Your task to perform on an android device: toggle priority inbox in the gmail app Image 0: 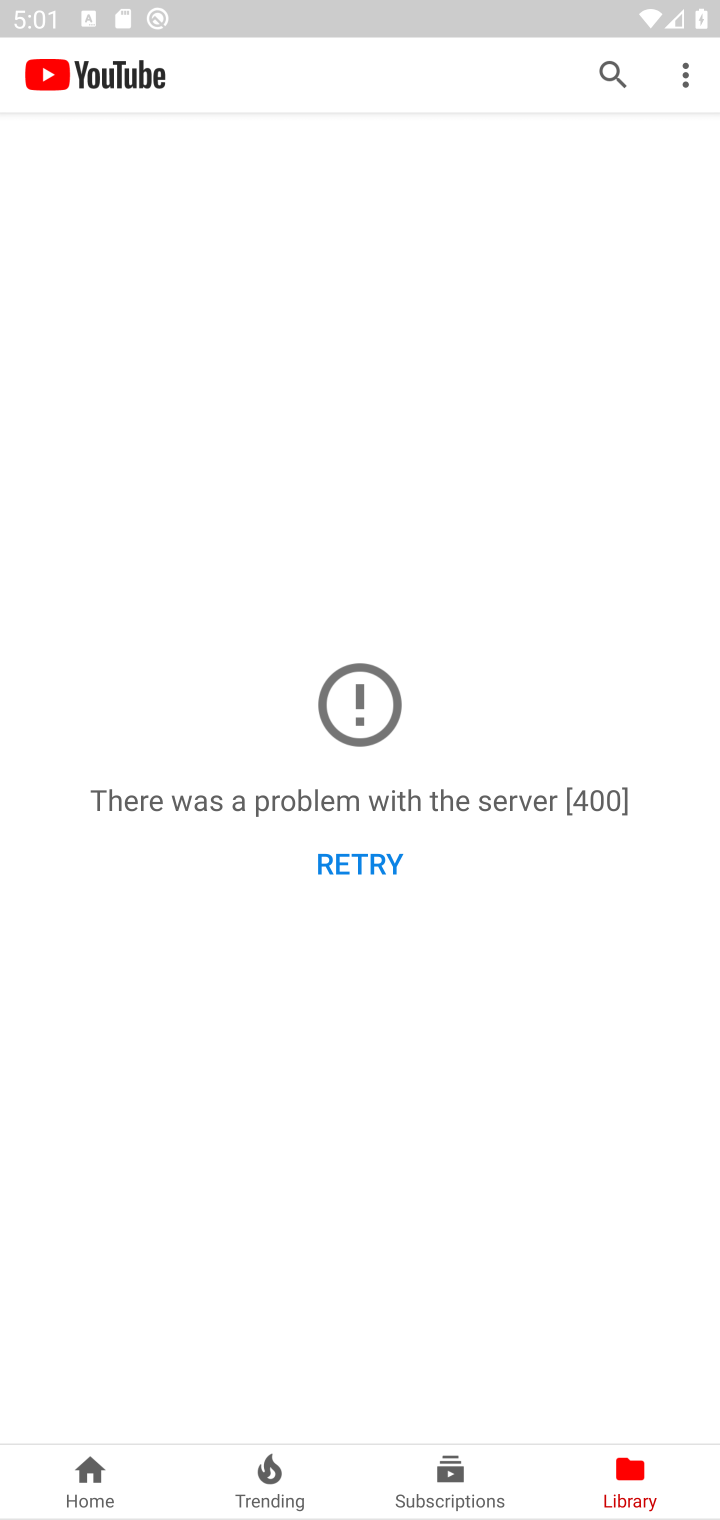
Step 0: press home button
Your task to perform on an android device: toggle priority inbox in the gmail app Image 1: 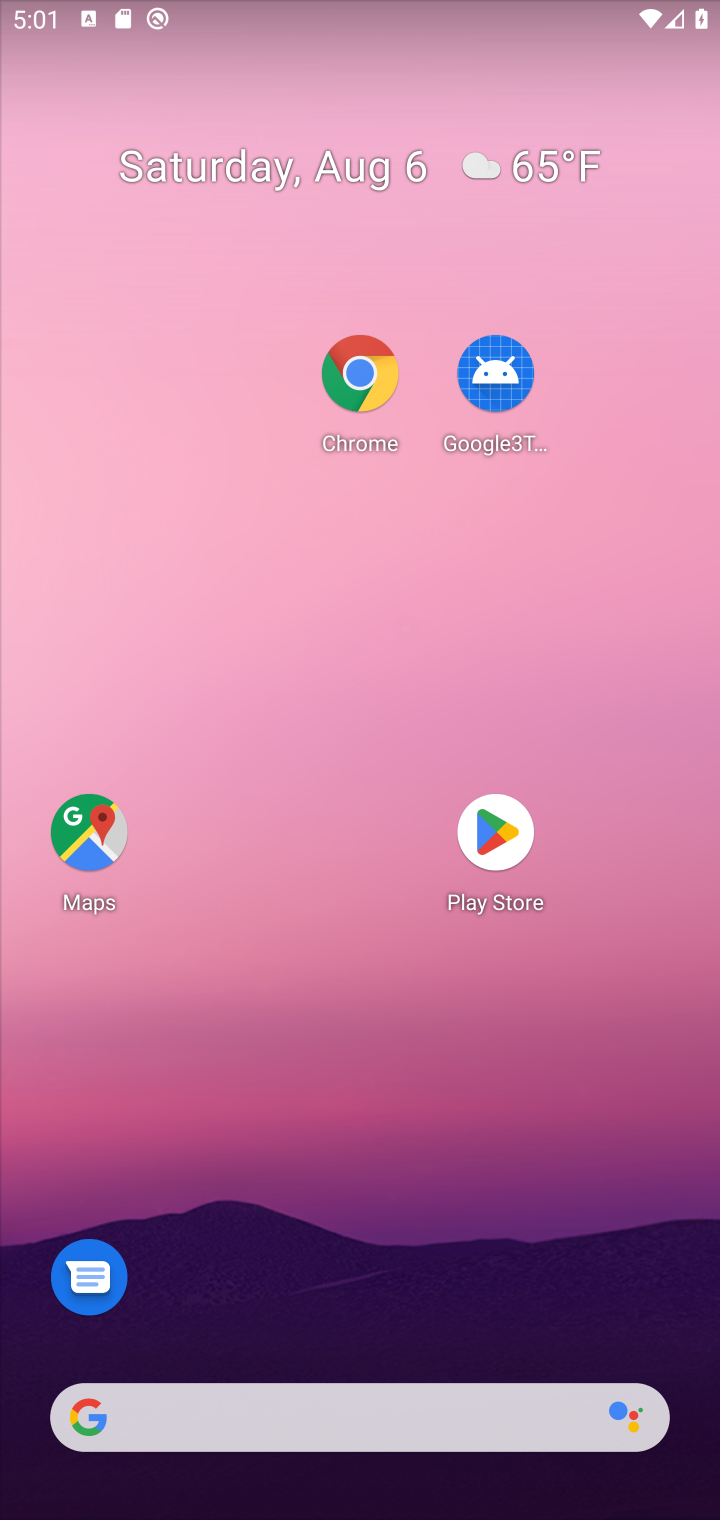
Step 1: drag from (486, 1423) to (568, 344)
Your task to perform on an android device: toggle priority inbox in the gmail app Image 2: 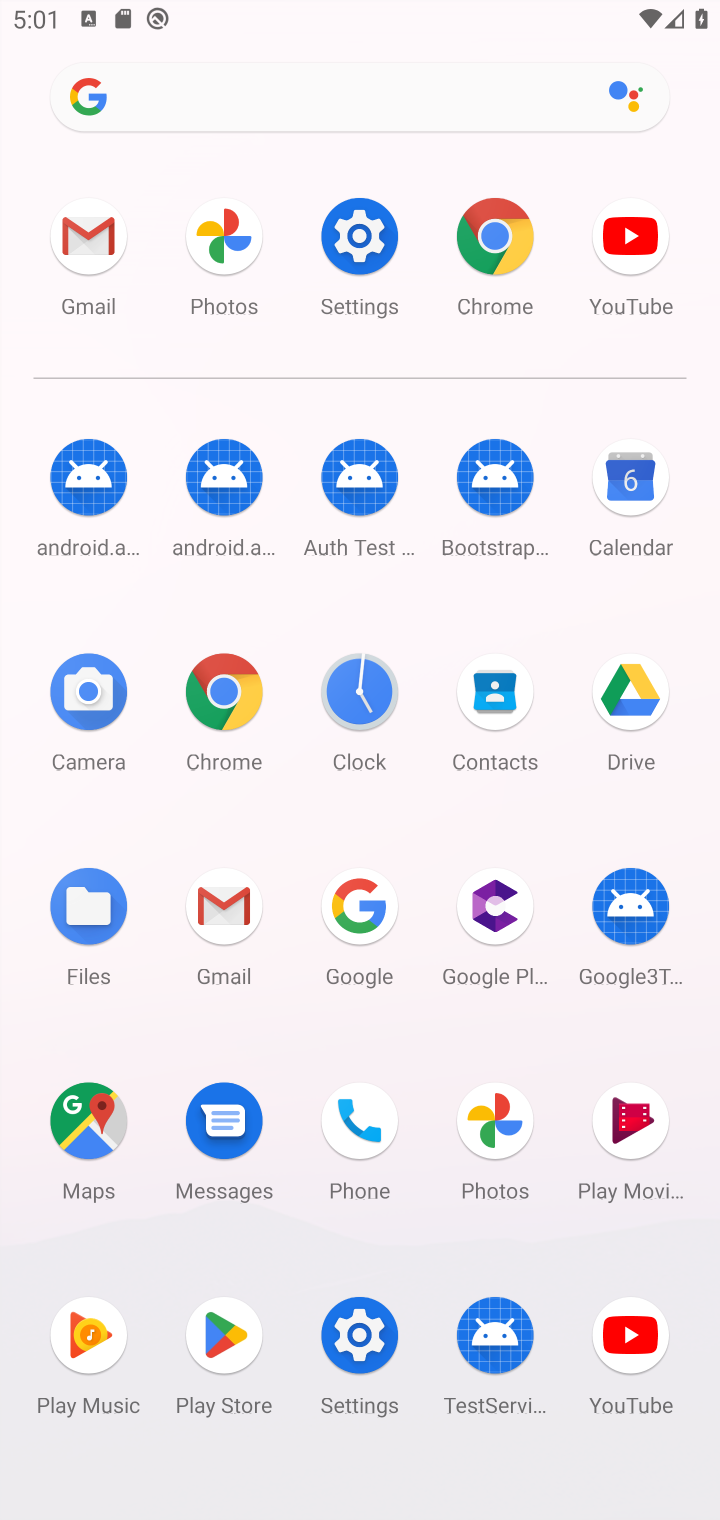
Step 2: click (349, 236)
Your task to perform on an android device: toggle priority inbox in the gmail app Image 3: 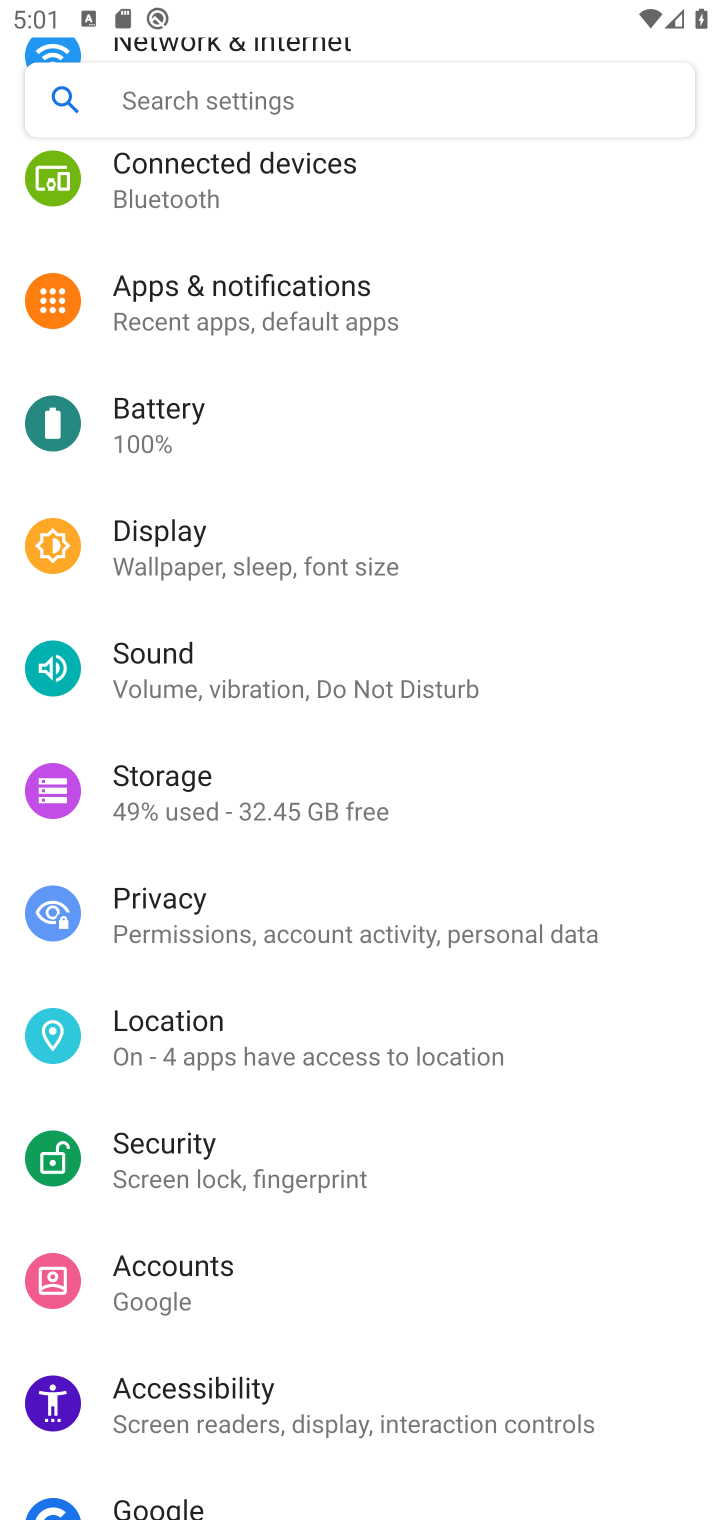
Step 3: press home button
Your task to perform on an android device: toggle priority inbox in the gmail app Image 4: 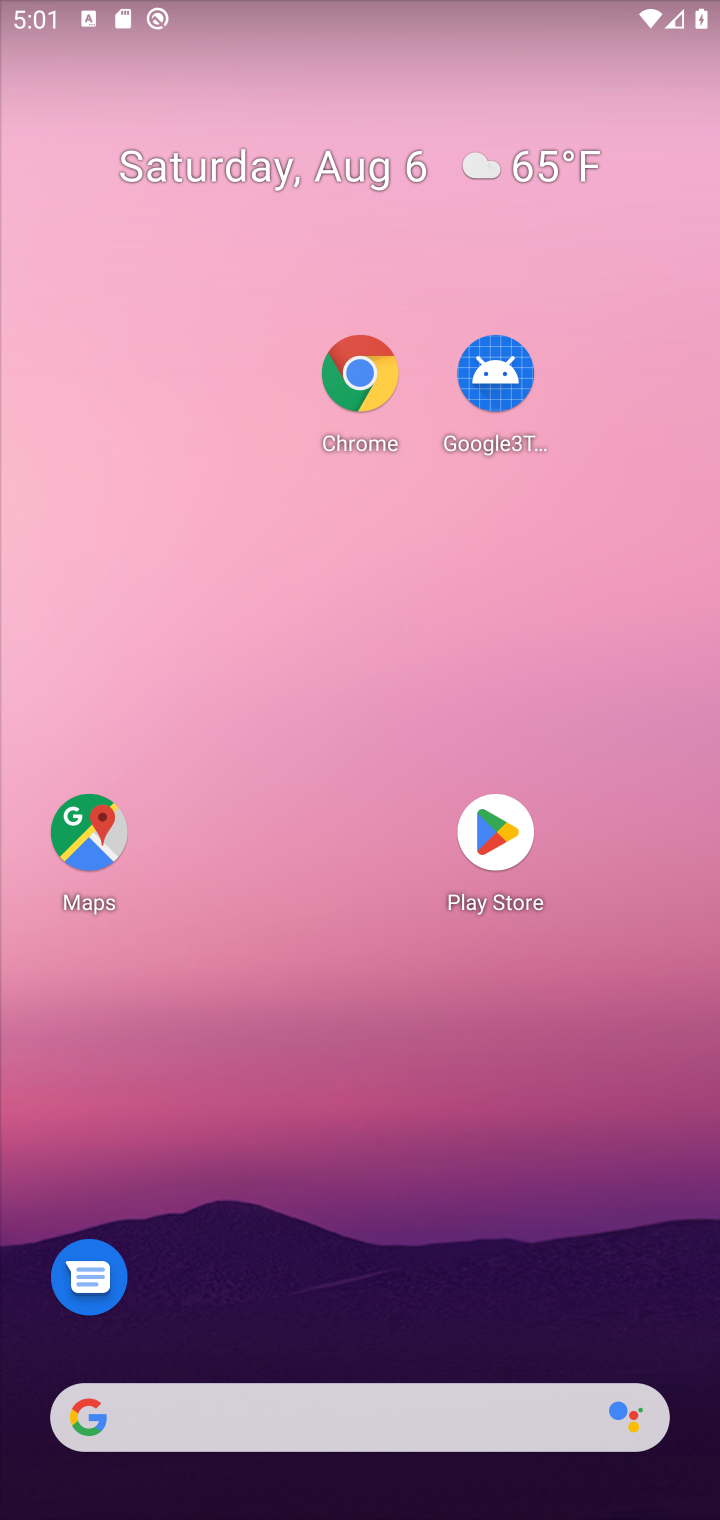
Step 4: drag from (550, 1401) to (576, 59)
Your task to perform on an android device: toggle priority inbox in the gmail app Image 5: 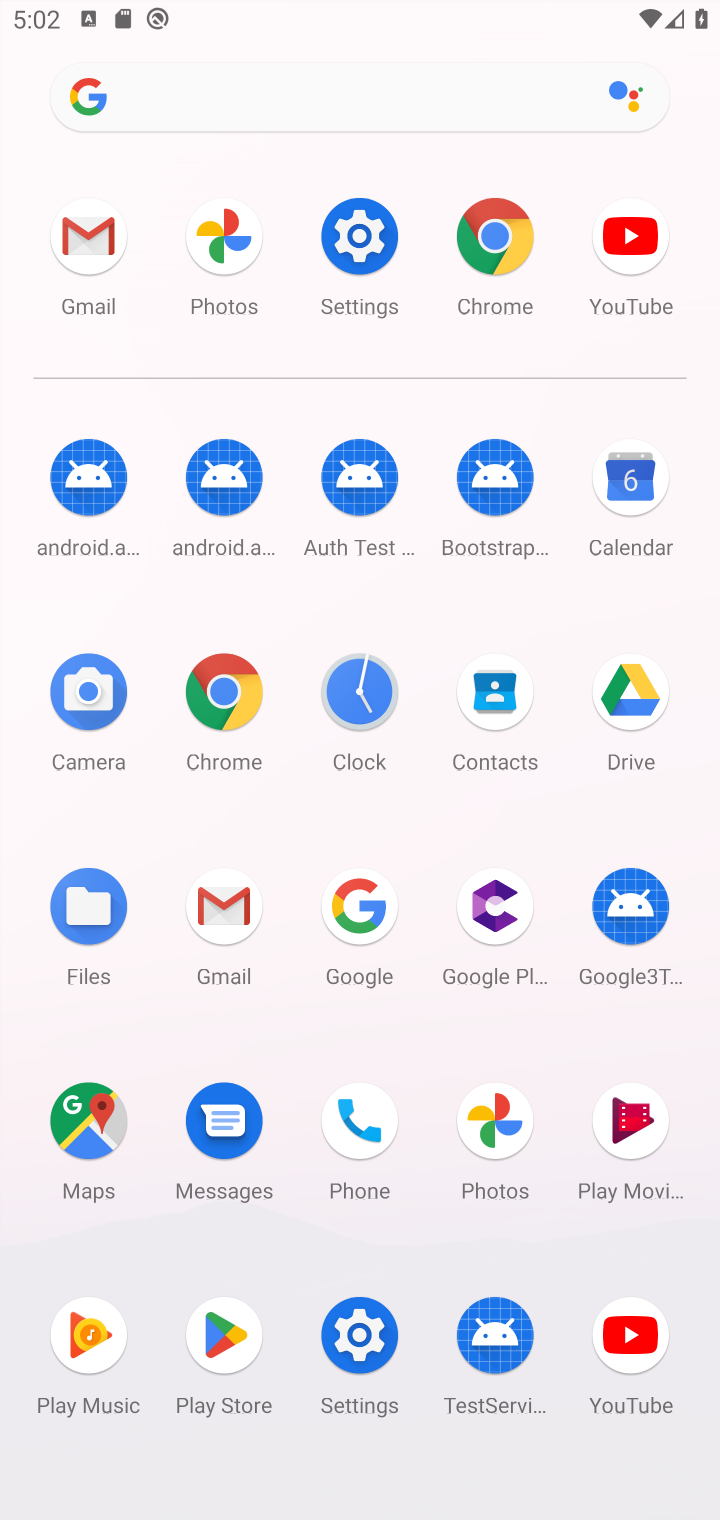
Step 5: click (246, 919)
Your task to perform on an android device: toggle priority inbox in the gmail app Image 6: 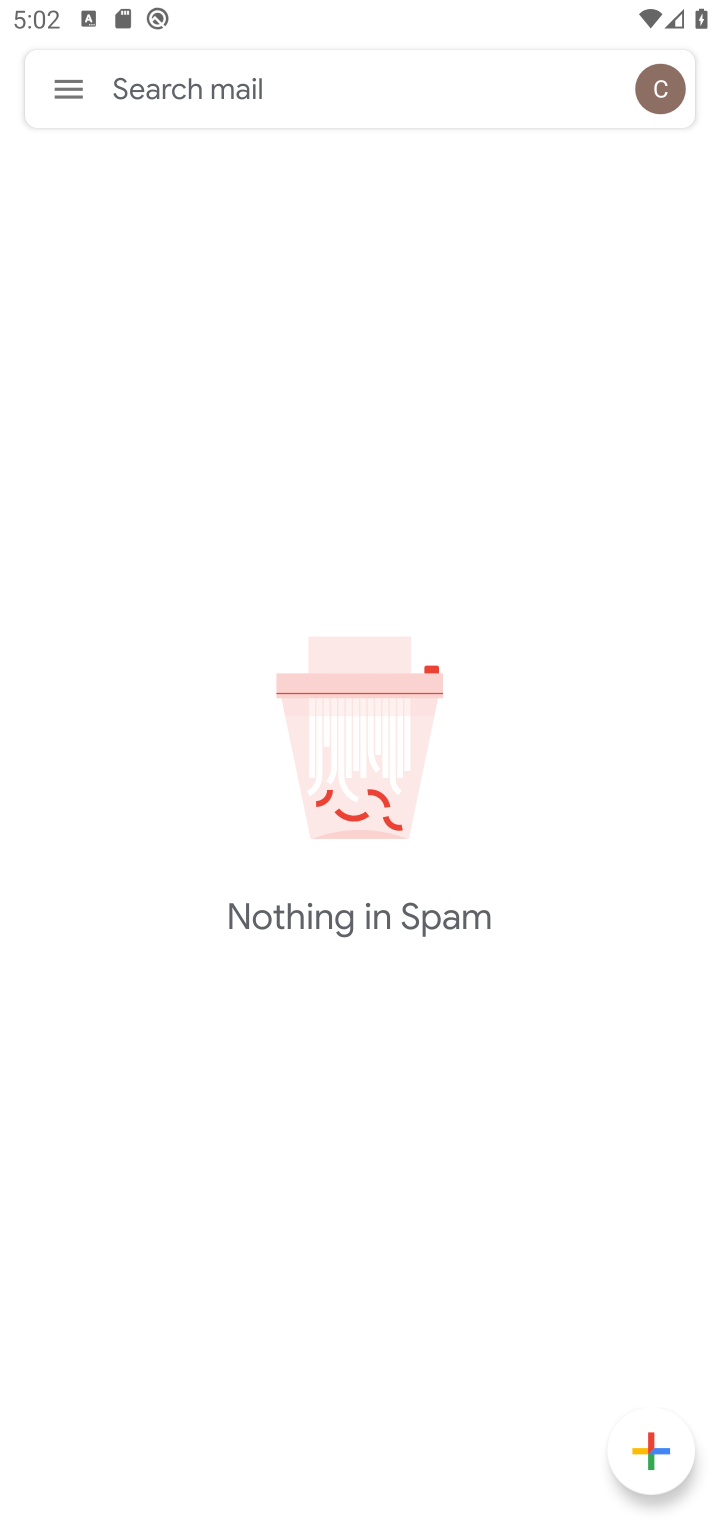
Step 6: click (66, 87)
Your task to perform on an android device: toggle priority inbox in the gmail app Image 7: 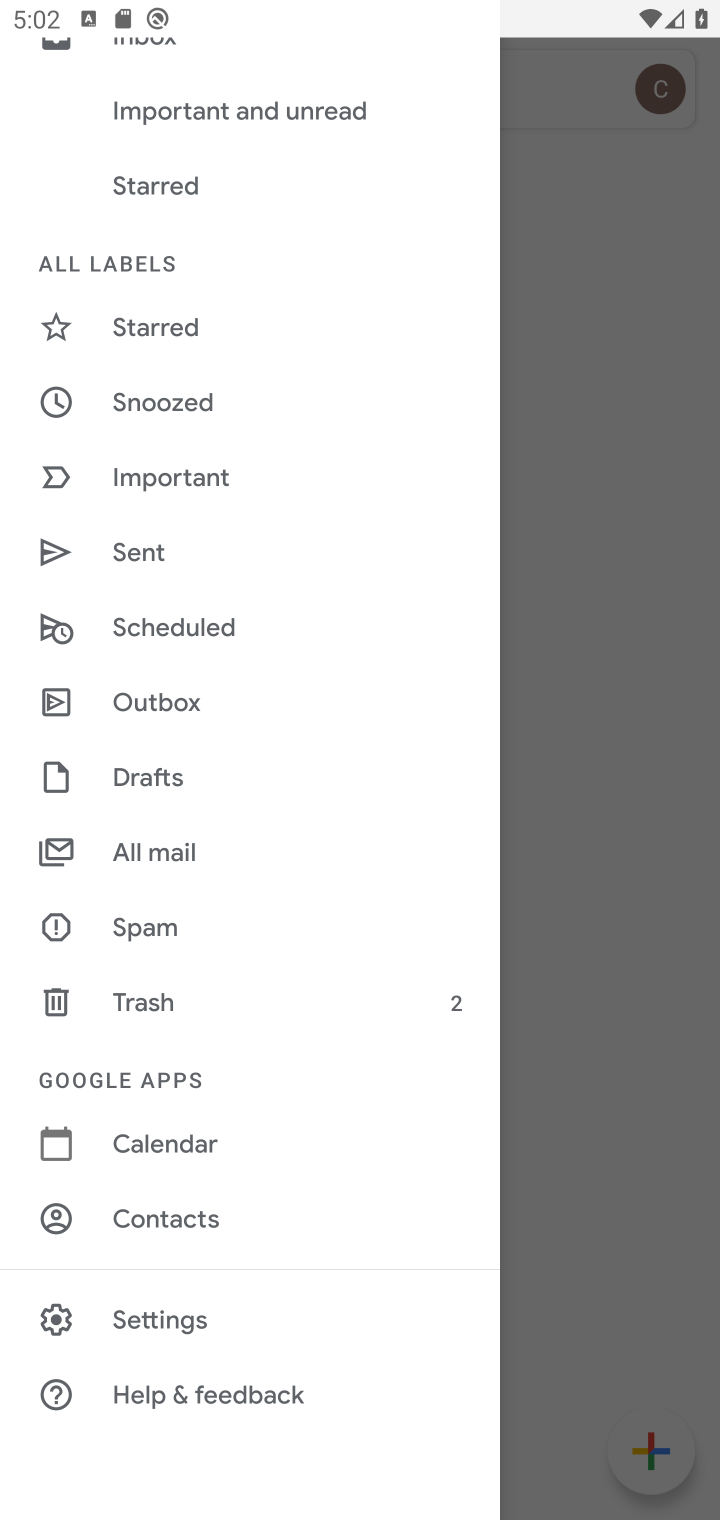
Step 7: click (177, 1304)
Your task to perform on an android device: toggle priority inbox in the gmail app Image 8: 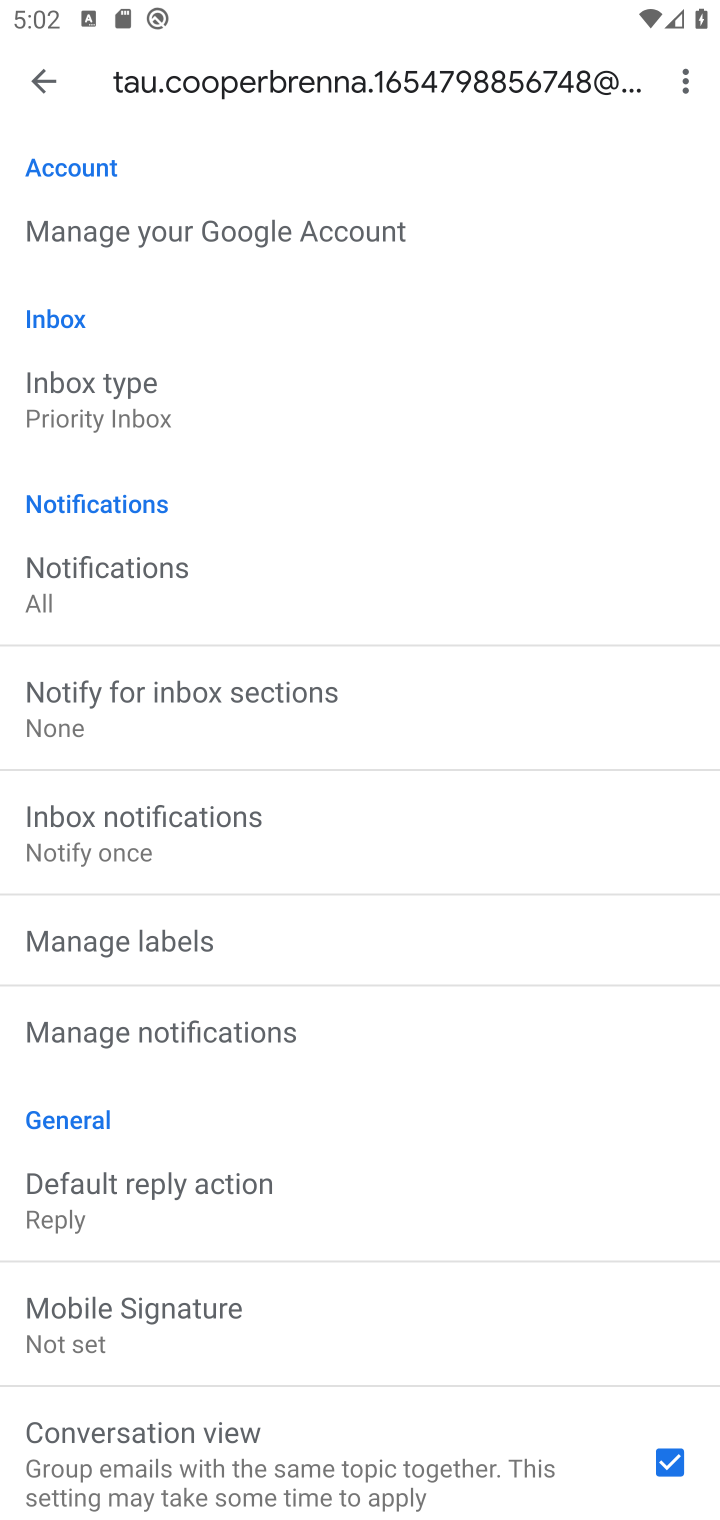
Step 8: click (219, 413)
Your task to perform on an android device: toggle priority inbox in the gmail app Image 9: 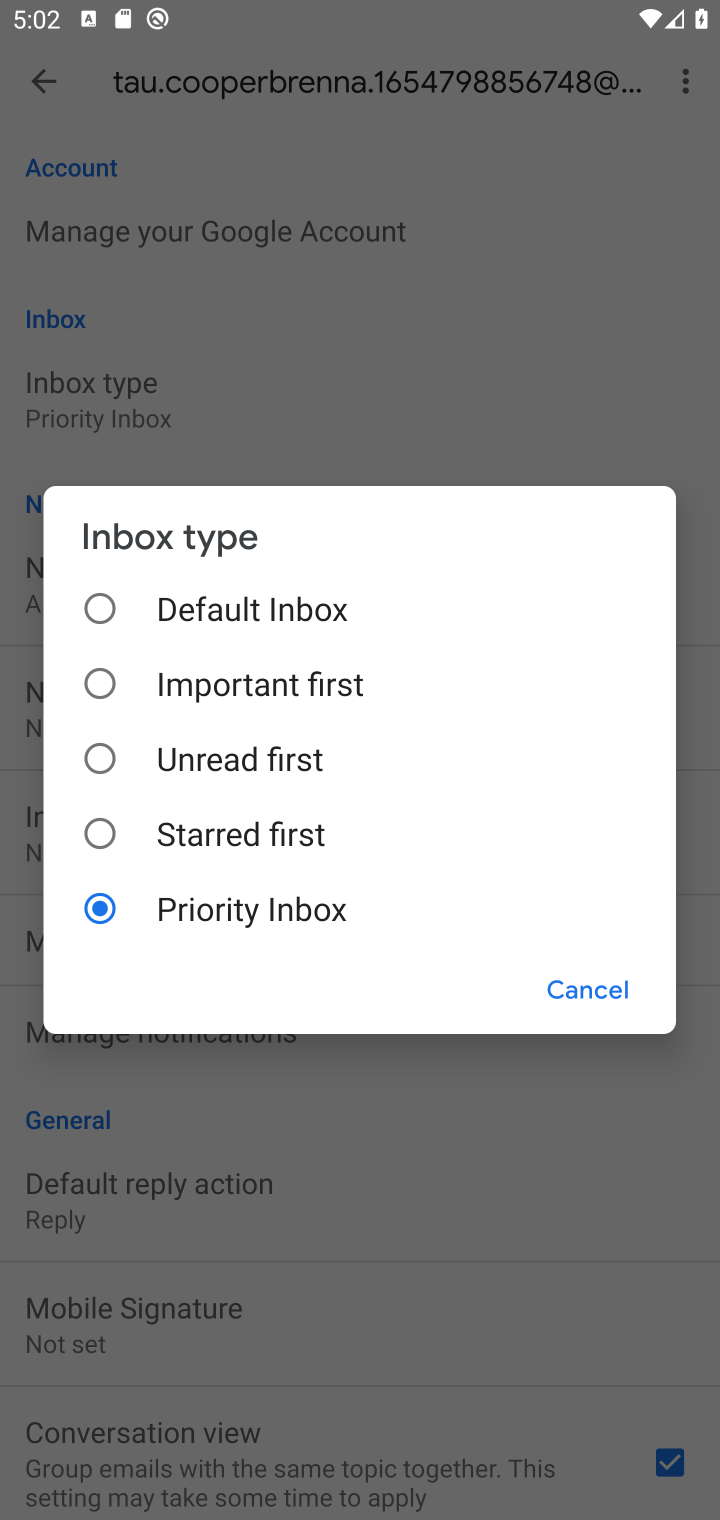
Step 9: click (102, 599)
Your task to perform on an android device: toggle priority inbox in the gmail app Image 10: 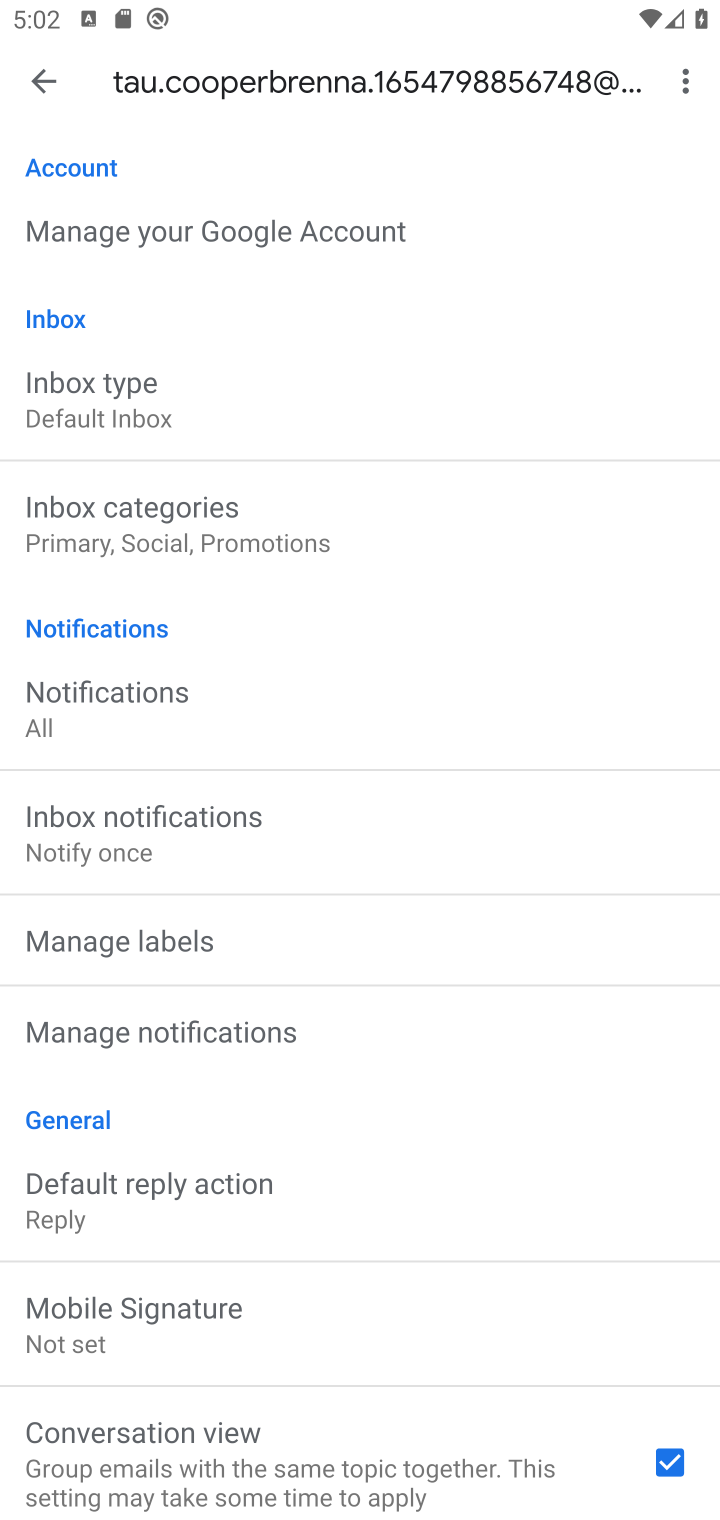
Step 10: task complete